Your task to perform on an android device: What's the news in Peru? Image 0: 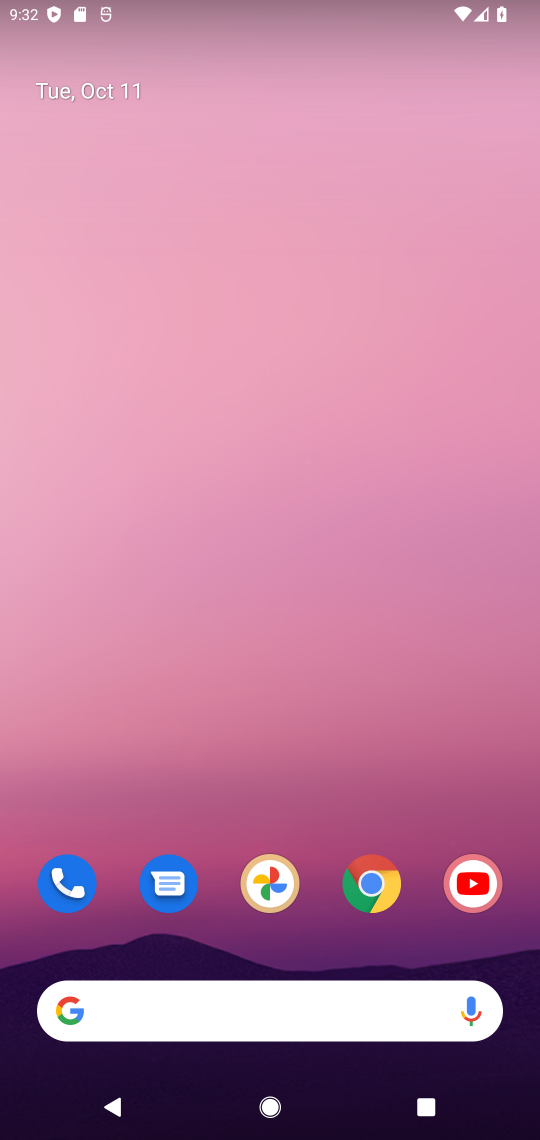
Step 0: click (65, 1006)
Your task to perform on an android device: What's the news in Peru? Image 1: 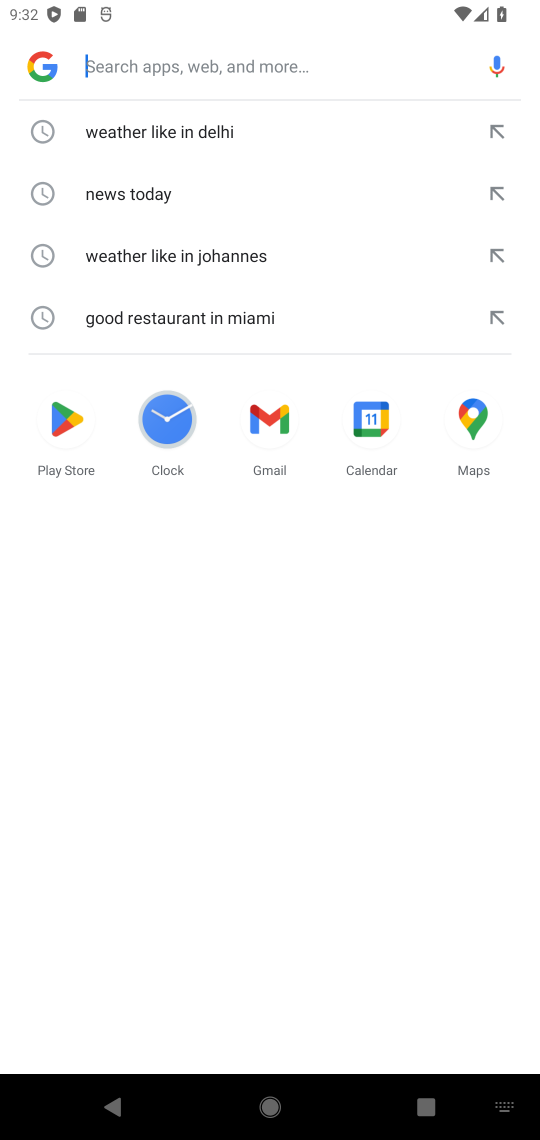
Step 1: type "What's the news in Peru?"
Your task to perform on an android device: What's the news in Peru? Image 2: 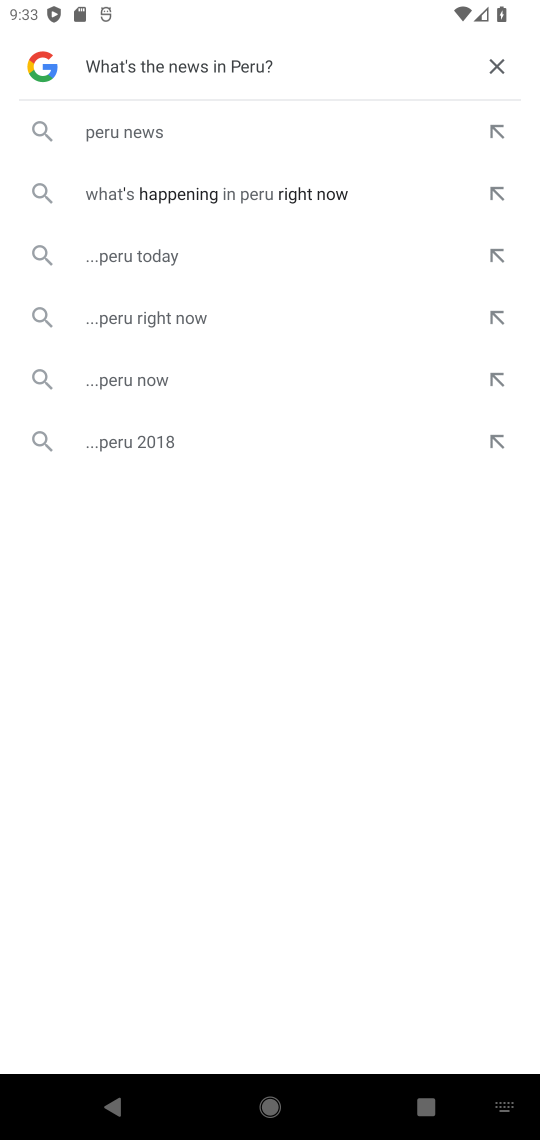
Step 2: task complete